Your task to perform on an android device: toggle translation in the chrome app Image 0: 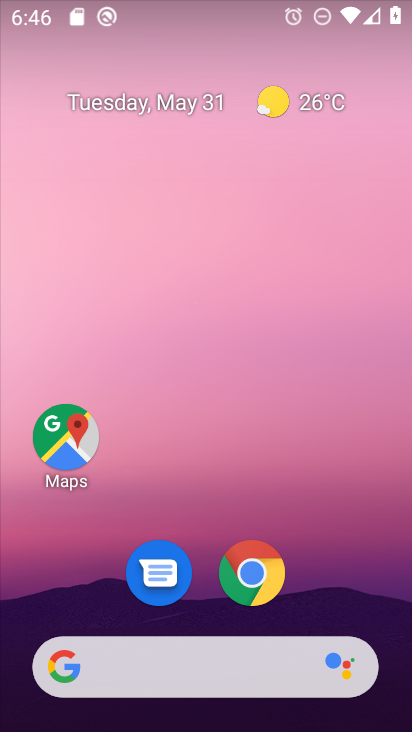
Step 0: drag from (399, 644) to (360, 64)
Your task to perform on an android device: toggle translation in the chrome app Image 1: 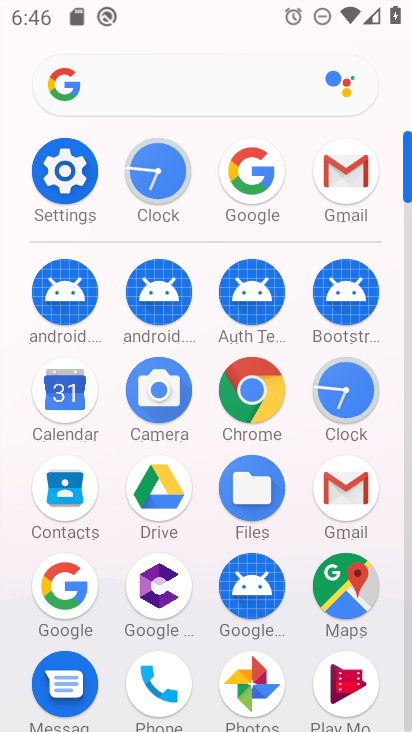
Step 1: click (272, 409)
Your task to perform on an android device: toggle translation in the chrome app Image 2: 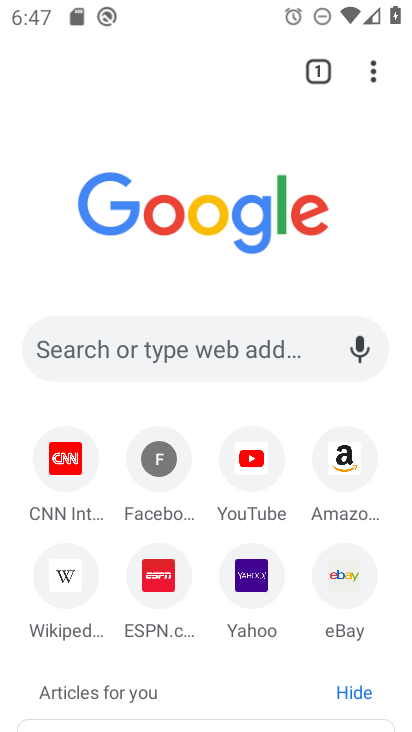
Step 2: click (366, 69)
Your task to perform on an android device: toggle translation in the chrome app Image 3: 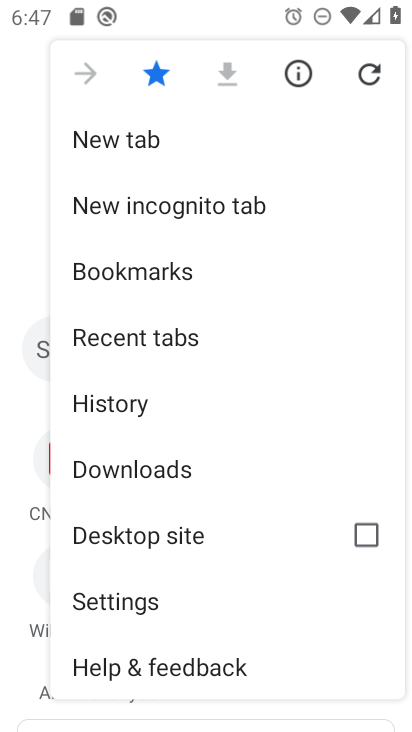
Step 3: click (198, 607)
Your task to perform on an android device: toggle translation in the chrome app Image 4: 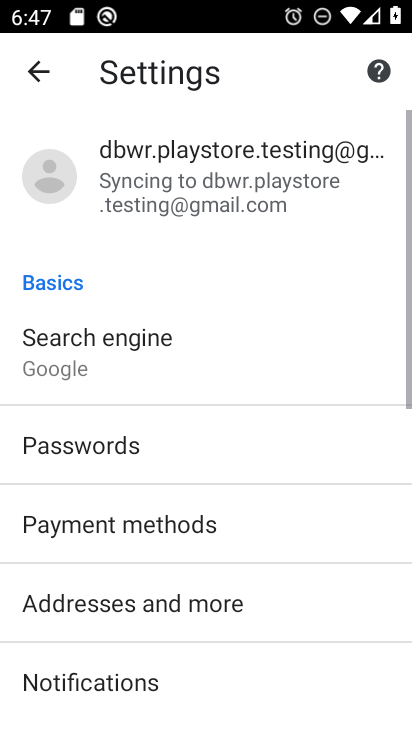
Step 4: drag from (197, 608) to (231, 126)
Your task to perform on an android device: toggle translation in the chrome app Image 5: 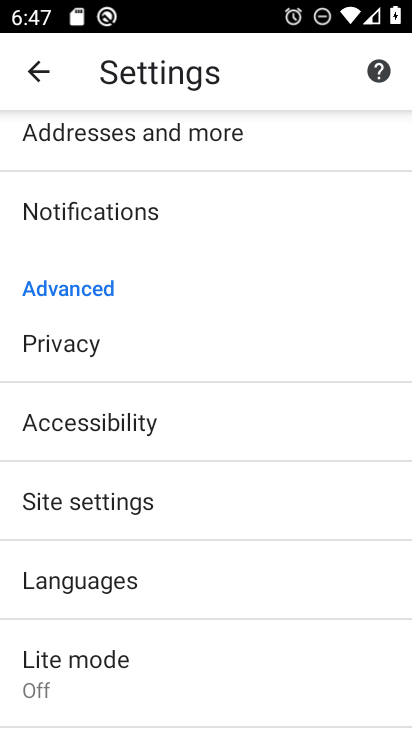
Step 5: click (207, 585)
Your task to perform on an android device: toggle translation in the chrome app Image 6: 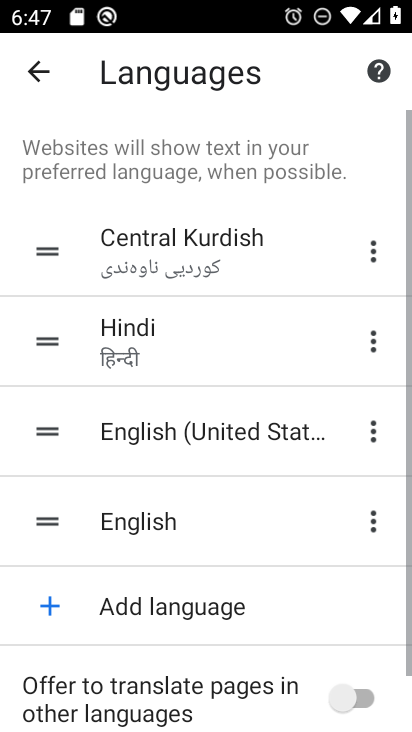
Step 6: click (374, 707)
Your task to perform on an android device: toggle translation in the chrome app Image 7: 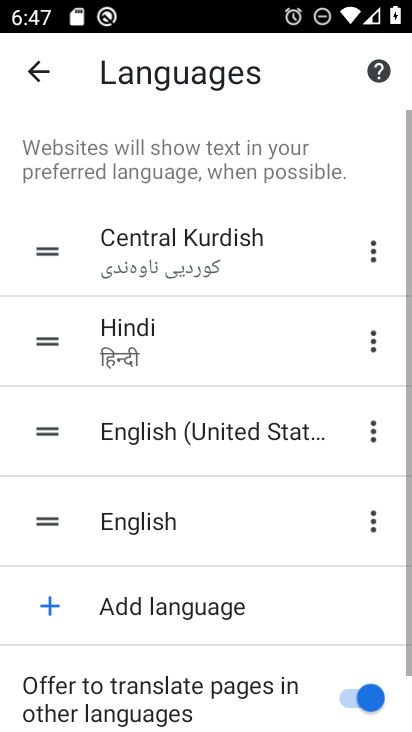
Step 7: task complete